Your task to perform on an android device: star an email in the gmail app Image 0: 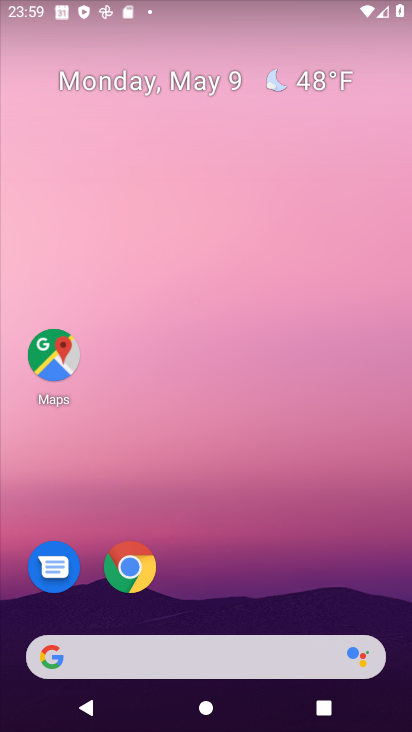
Step 0: press back button
Your task to perform on an android device: star an email in the gmail app Image 1: 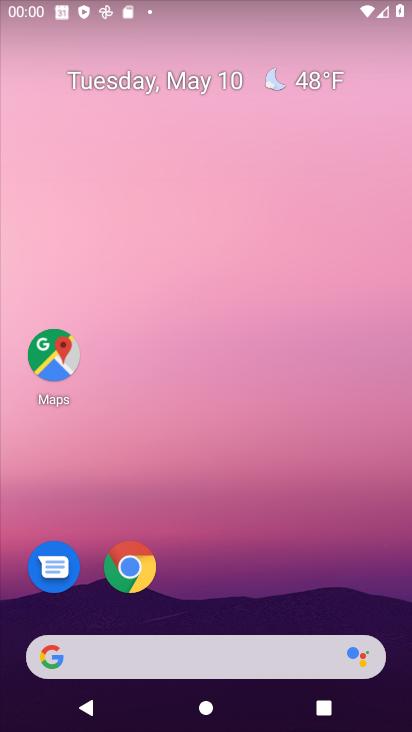
Step 1: drag from (204, 492) to (13, 525)
Your task to perform on an android device: star an email in the gmail app Image 2: 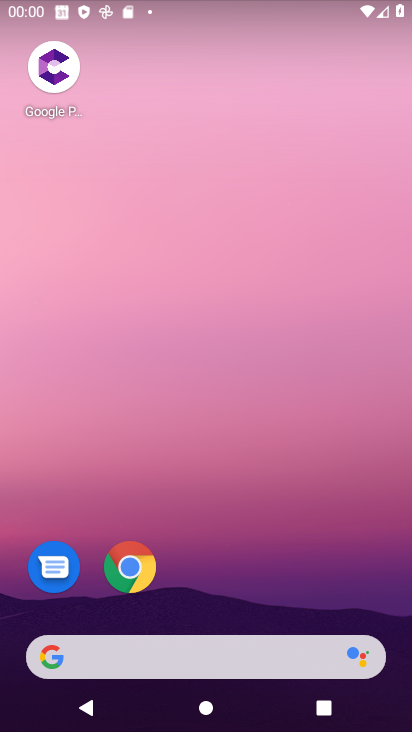
Step 2: click (170, 54)
Your task to perform on an android device: star an email in the gmail app Image 3: 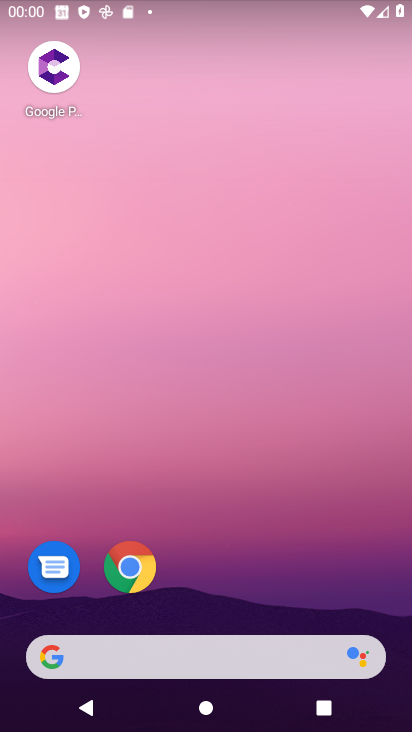
Step 3: drag from (309, 285) to (316, 104)
Your task to perform on an android device: star an email in the gmail app Image 4: 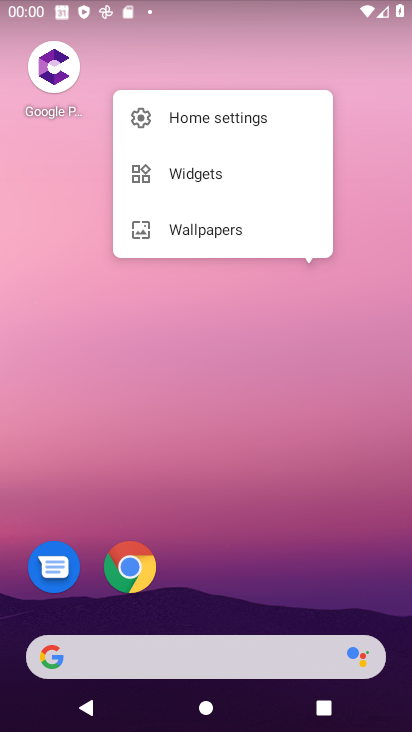
Step 4: click (286, 436)
Your task to perform on an android device: star an email in the gmail app Image 5: 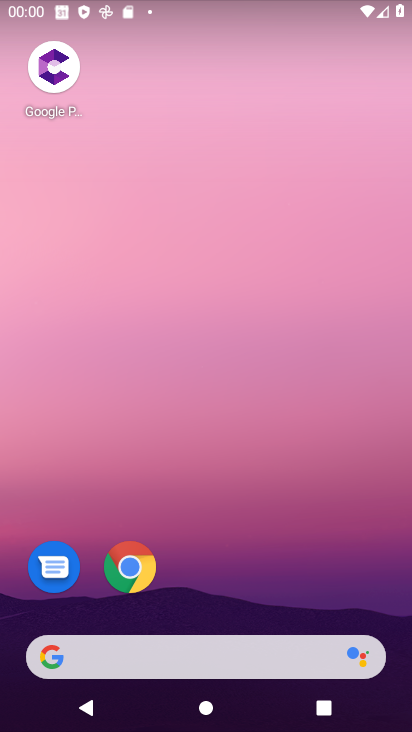
Step 5: click (216, 367)
Your task to perform on an android device: star an email in the gmail app Image 6: 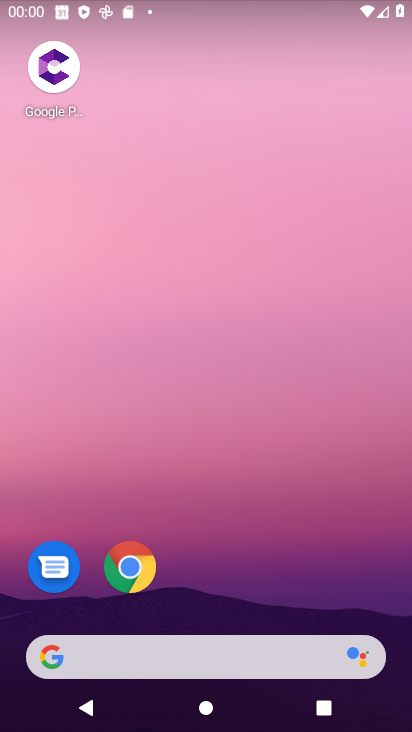
Step 6: drag from (277, 537) to (283, 99)
Your task to perform on an android device: star an email in the gmail app Image 7: 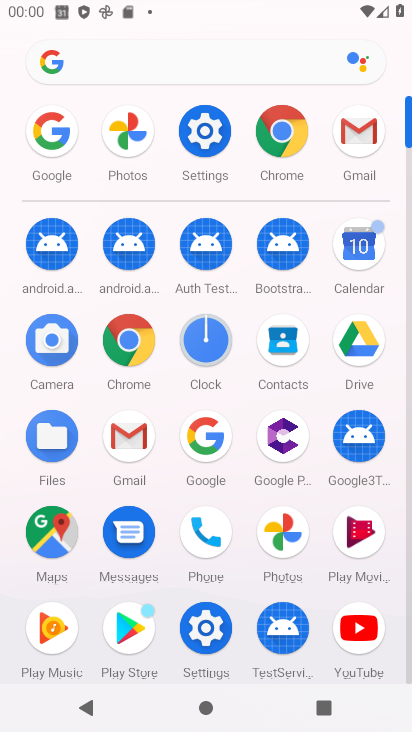
Step 7: click (357, 144)
Your task to perform on an android device: star an email in the gmail app Image 8: 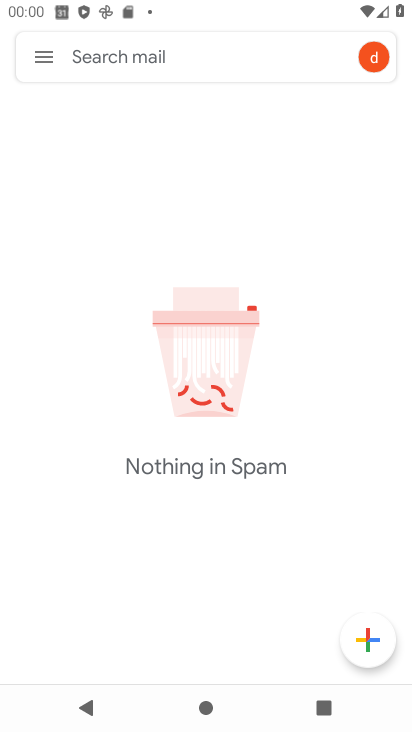
Step 8: click (46, 61)
Your task to perform on an android device: star an email in the gmail app Image 9: 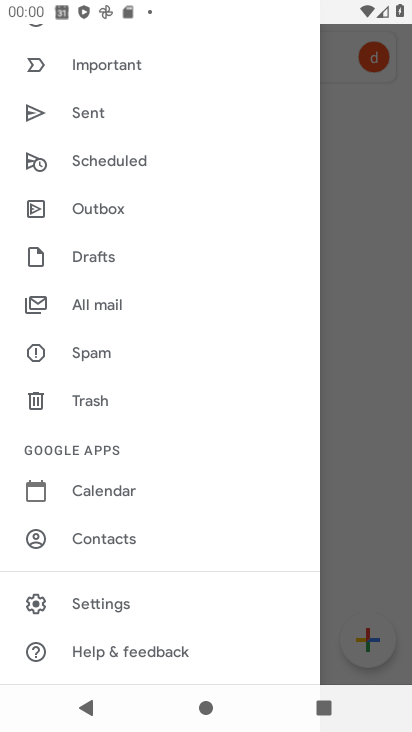
Step 9: drag from (108, 140) to (110, 272)
Your task to perform on an android device: star an email in the gmail app Image 10: 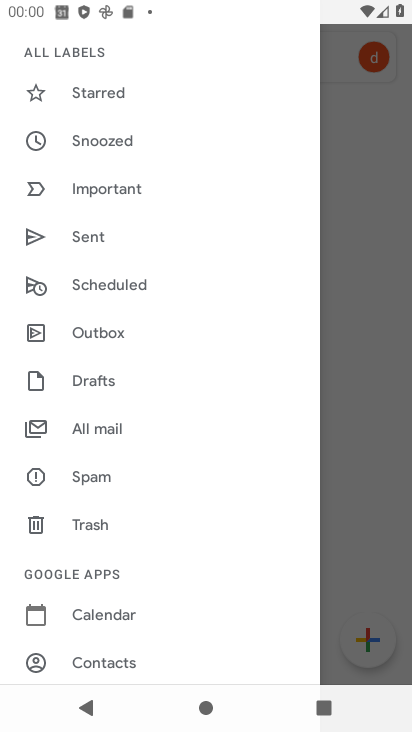
Step 10: click (87, 93)
Your task to perform on an android device: star an email in the gmail app Image 11: 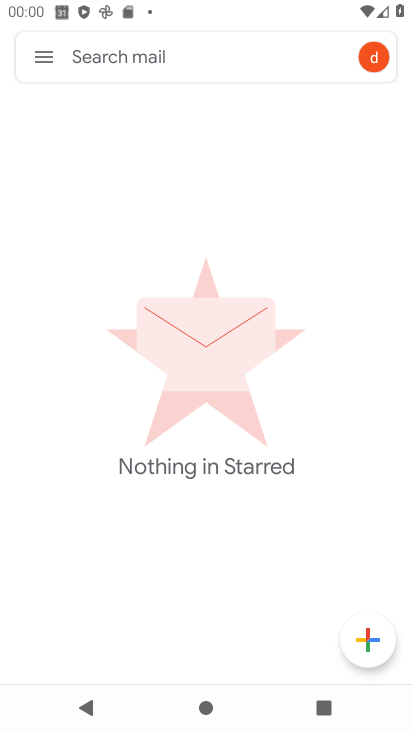
Step 11: task complete